Your task to perform on an android device: star an email in the gmail app Image 0: 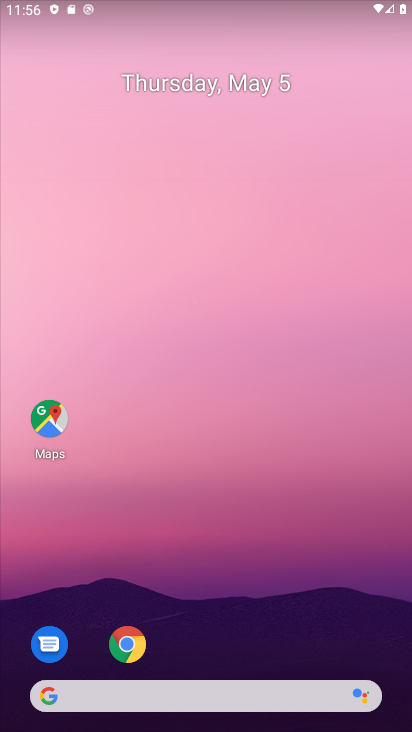
Step 0: drag from (16, 727) to (202, 184)
Your task to perform on an android device: star an email in the gmail app Image 1: 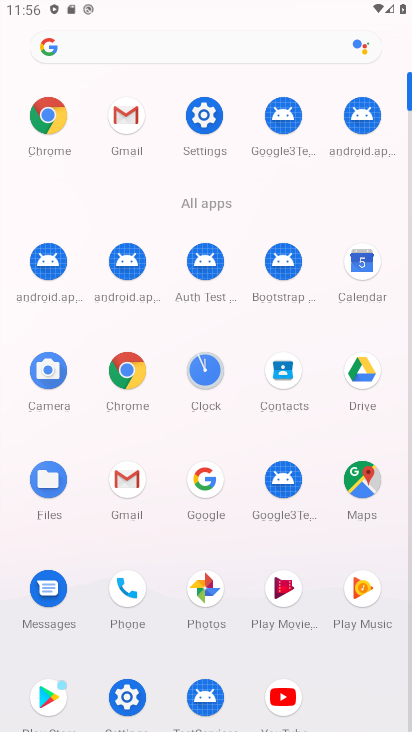
Step 1: click (118, 114)
Your task to perform on an android device: star an email in the gmail app Image 2: 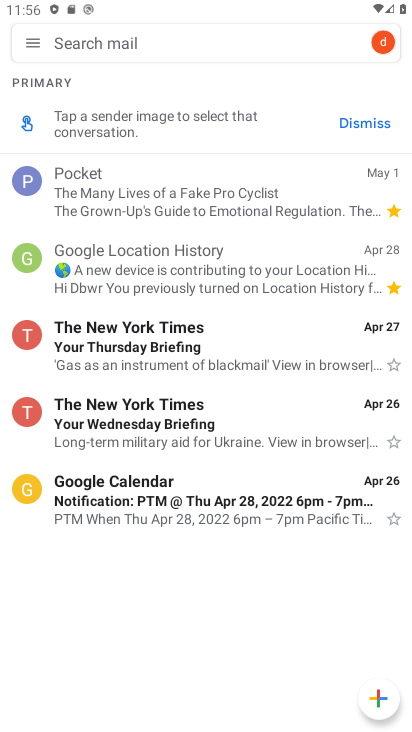
Step 2: click (393, 359)
Your task to perform on an android device: star an email in the gmail app Image 3: 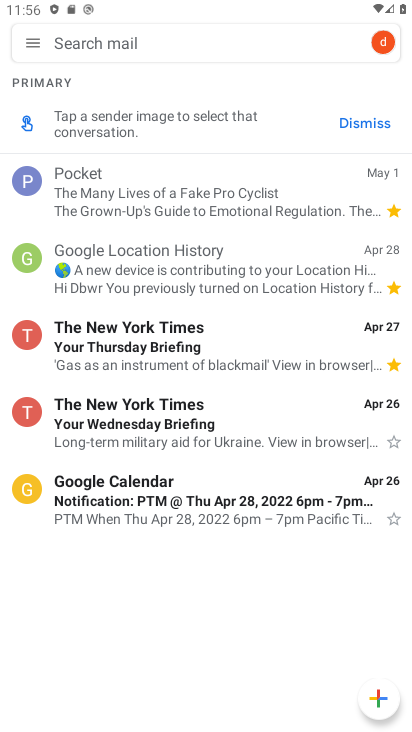
Step 3: task complete